Your task to perform on an android device: turn off picture-in-picture Image 0: 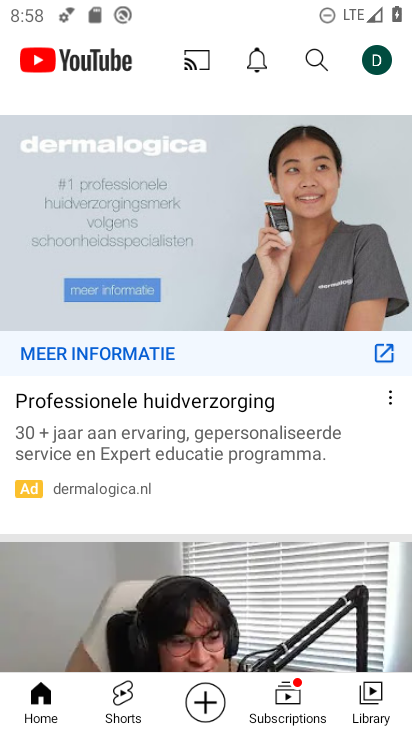
Step 0: press home button
Your task to perform on an android device: turn off picture-in-picture Image 1: 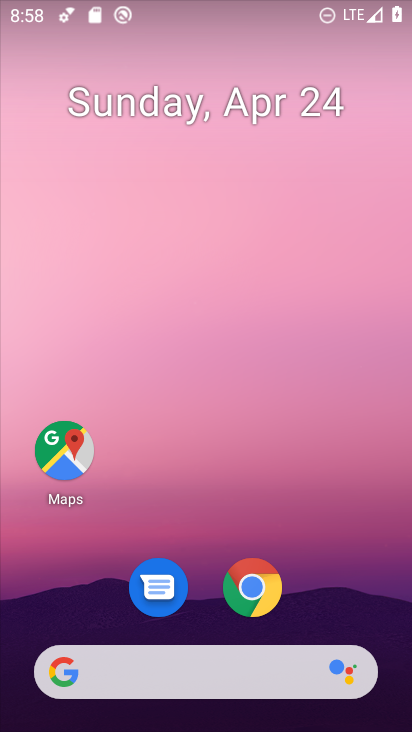
Step 1: drag from (340, 565) to (336, 229)
Your task to perform on an android device: turn off picture-in-picture Image 2: 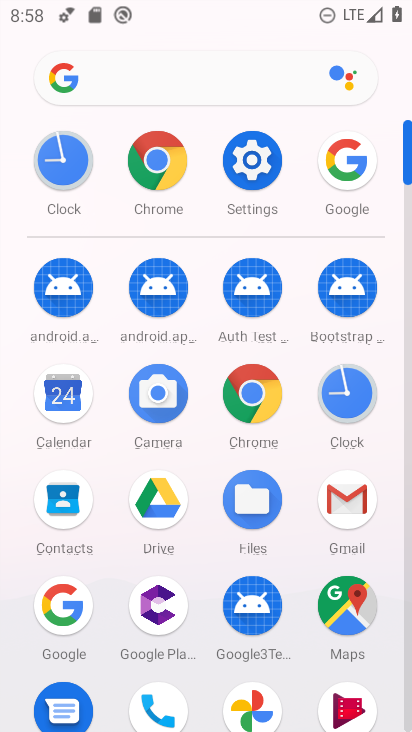
Step 2: click (241, 171)
Your task to perform on an android device: turn off picture-in-picture Image 3: 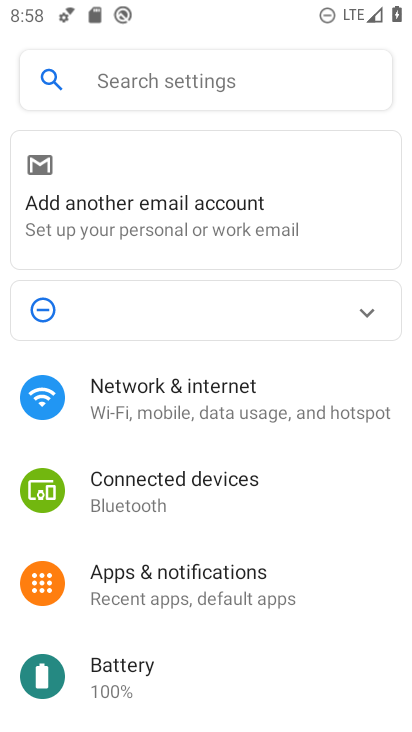
Step 3: click (155, 583)
Your task to perform on an android device: turn off picture-in-picture Image 4: 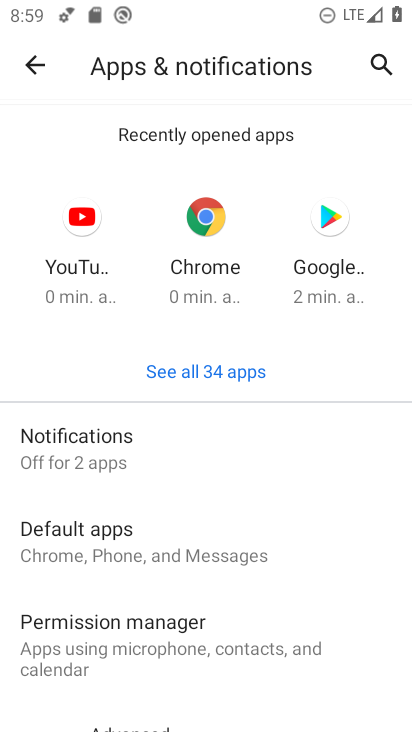
Step 4: drag from (321, 674) to (306, 242)
Your task to perform on an android device: turn off picture-in-picture Image 5: 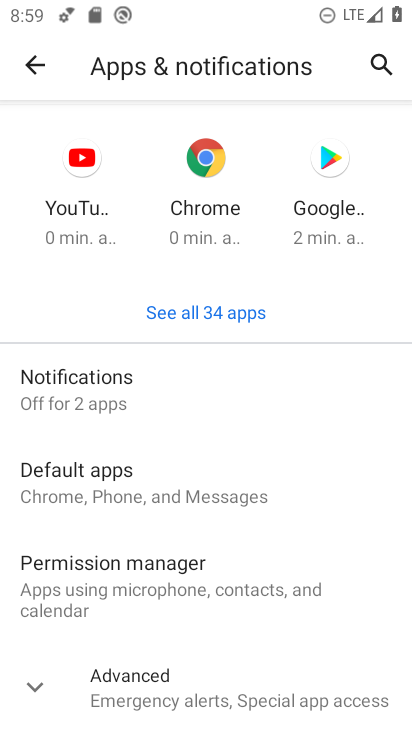
Step 5: click (258, 691)
Your task to perform on an android device: turn off picture-in-picture Image 6: 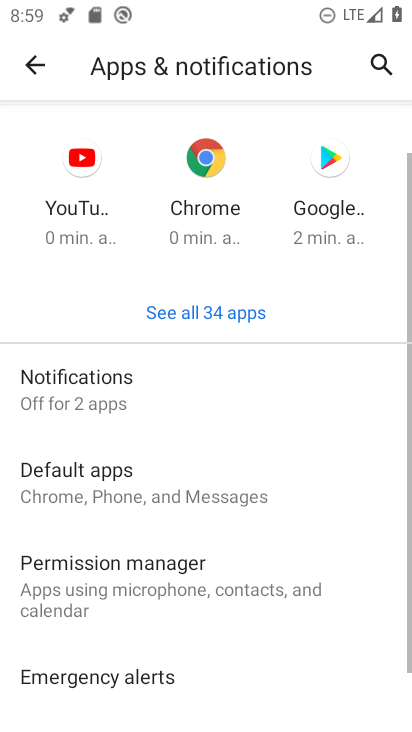
Step 6: drag from (283, 682) to (279, 294)
Your task to perform on an android device: turn off picture-in-picture Image 7: 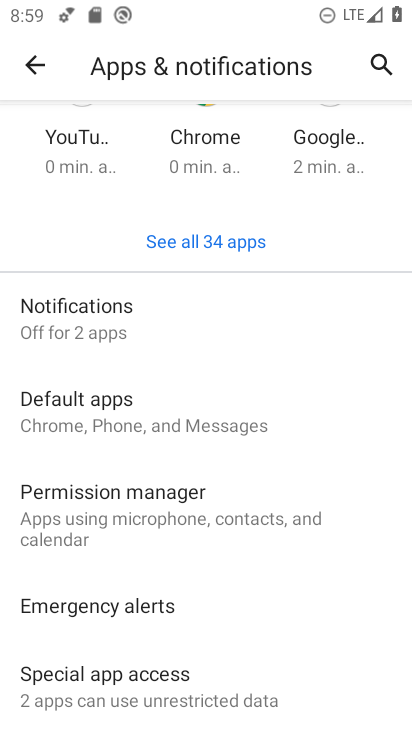
Step 7: click (221, 705)
Your task to perform on an android device: turn off picture-in-picture Image 8: 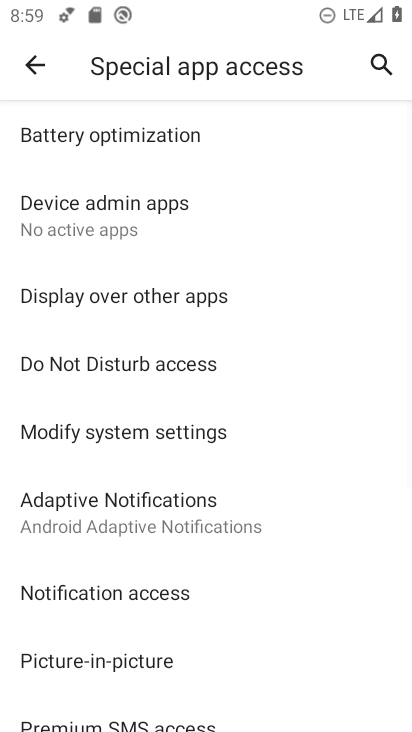
Step 8: click (180, 677)
Your task to perform on an android device: turn off picture-in-picture Image 9: 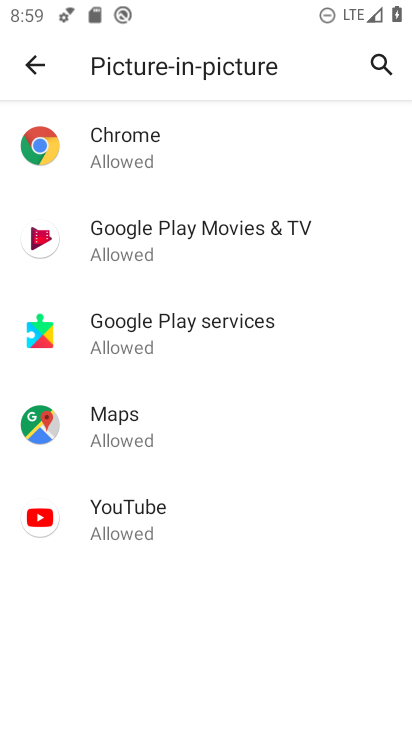
Step 9: click (246, 139)
Your task to perform on an android device: turn off picture-in-picture Image 10: 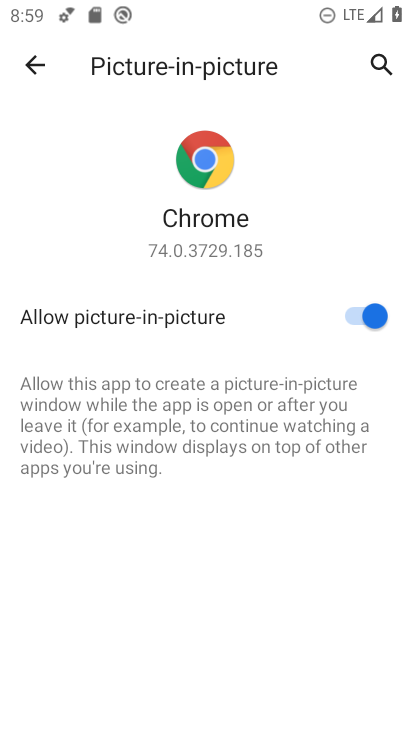
Step 10: click (356, 314)
Your task to perform on an android device: turn off picture-in-picture Image 11: 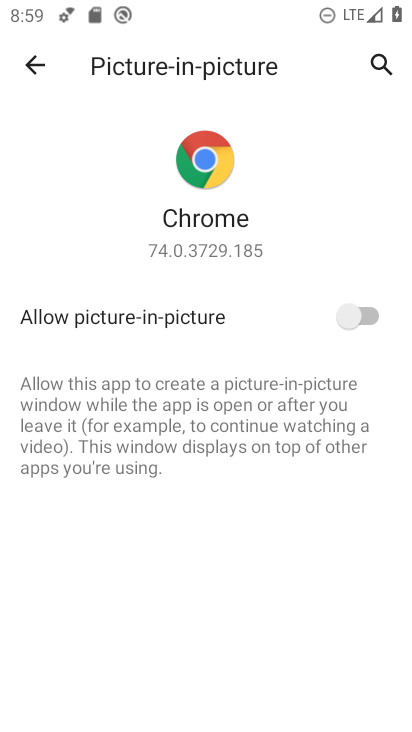
Step 11: task complete